Your task to perform on an android device: Go to battery settings Image 0: 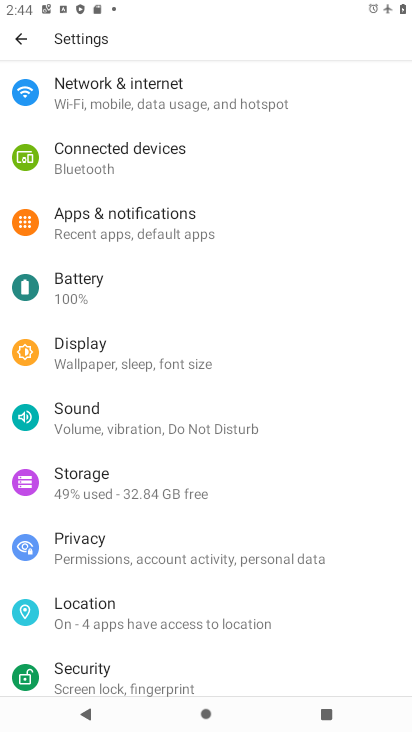
Step 0: click (68, 276)
Your task to perform on an android device: Go to battery settings Image 1: 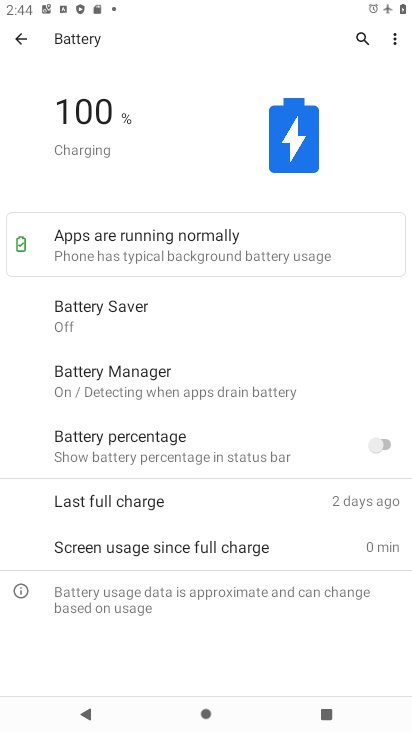
Step 1: task complete